Your task to perform on an android device: Open internet settings Image 0: 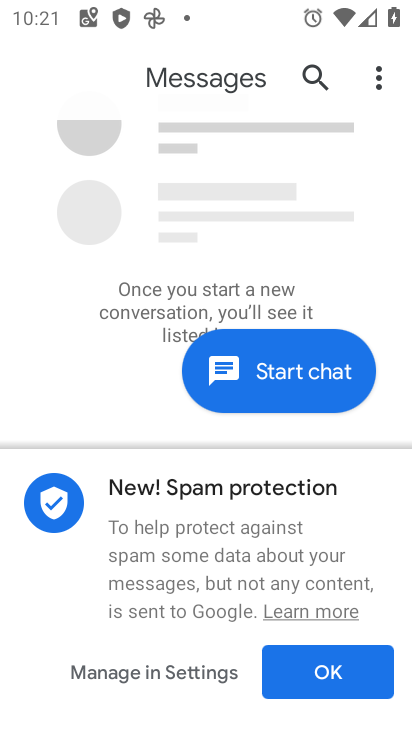
Step 0: press home button
Your task to perform on an android device: Open internet settings Image 1: 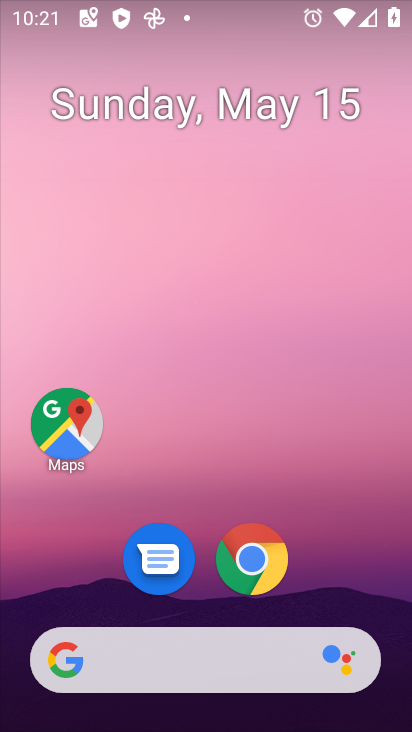
Step 1: drag from (340, 574) to (328, 86)
Your task to perform on an android device: Open internet settings Image 2: 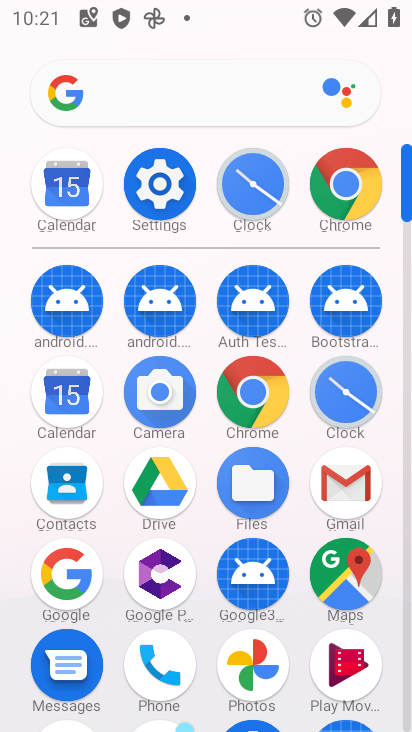
Step 2: click (156, 227)
Your task to perform on an android device: Open internet settings Image 3: 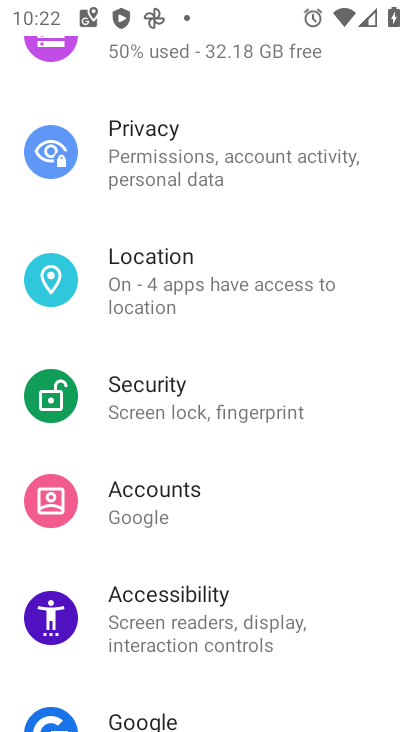
Step 3: drag from (218, 164) to (280, 680)
Your task to perform on an android device: Open internet settings Image 4: 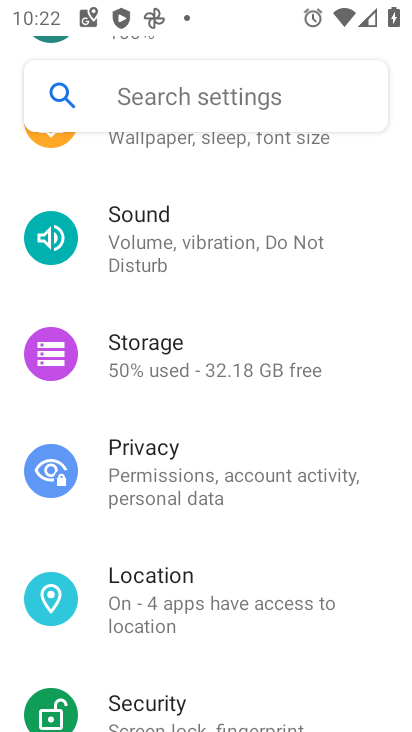
Step 4: drag from (242, 284) to (248, 593)
Your task to perform on an android device: Open internet settings Image 5: 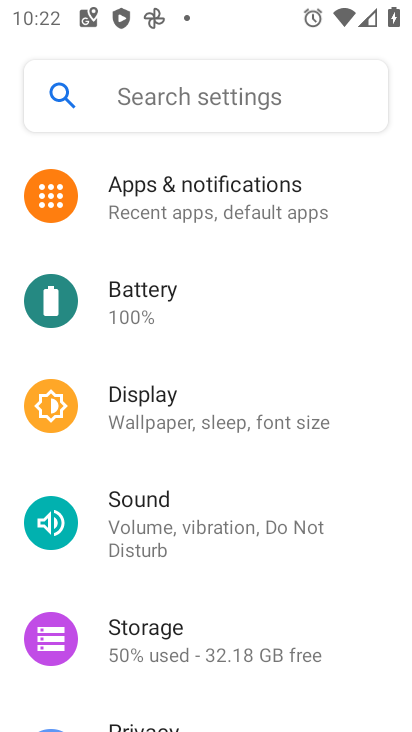
Step 5: drag from (259, 224) to (316, 519)
Your task to perform on an android device: Open internet settings Image 6: 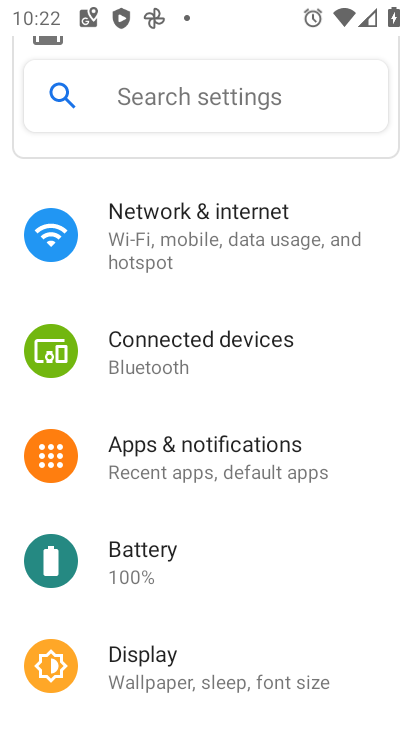
Step 6: click (257, 242)
Your task to perform on an android device: Open internet settings Image 7: 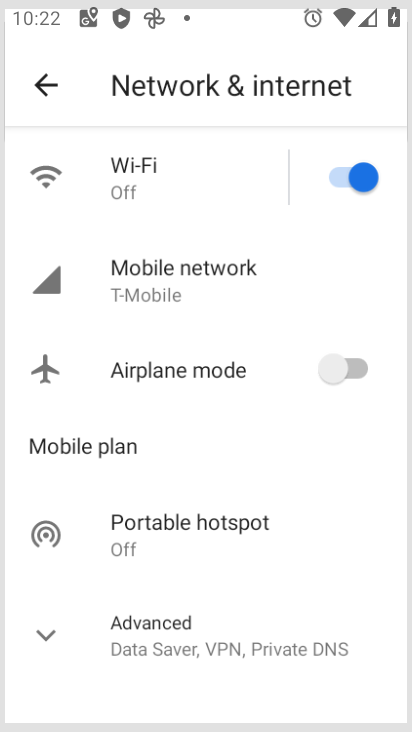
Step 7: task complete